Your task to perform on an android device: Open Google Chrome and open the bookmarks view Image 0: 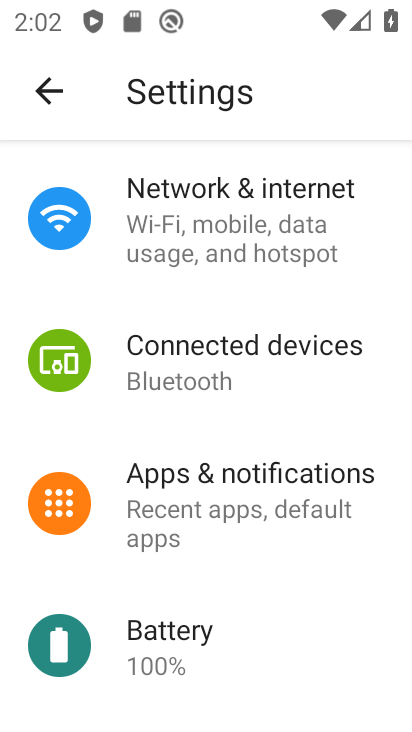
Step 0: press home button
Your task to perform on an android device: Open Google Chrome and open the bookmarks view Image 1: 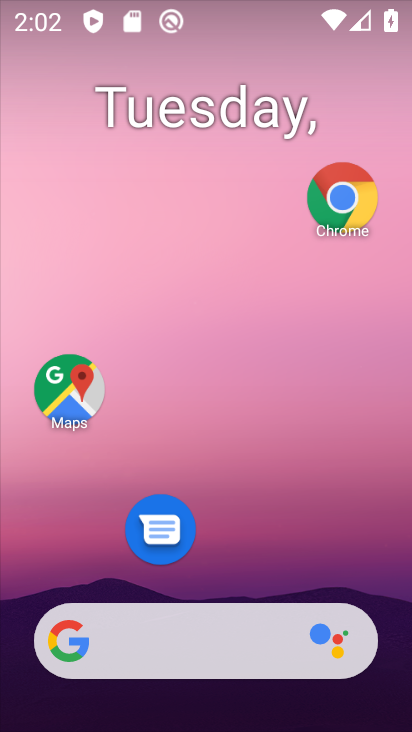
Step 1: click (339, 196)
Your task to perform on an android device: Open Google Chrome and open the bookmarks view Image 2: 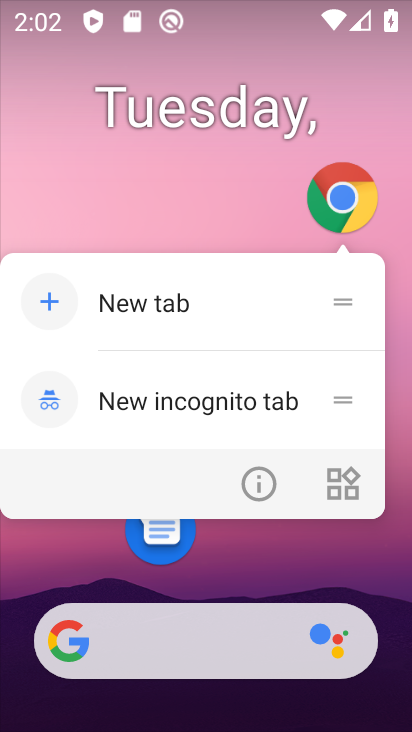
Step 2: click (345, 199)
Your task to perform on an android device: Open Google Chrome and open the bookmarks view Image 3: 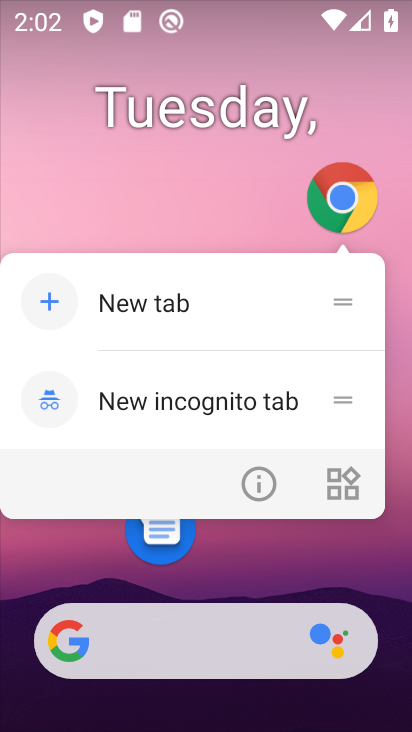
Step 3: click (346, 203)
Your task to perform on an android device: Open Google Chrome and open the bookmarks view Image 4: 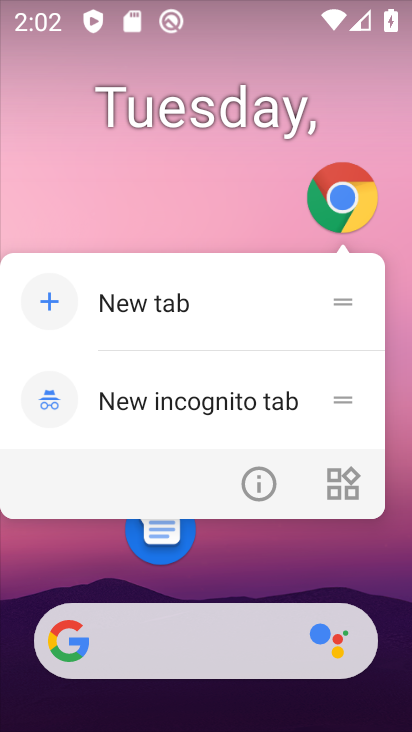
Step 4: click (347, 206)
Your task to perform on an android device: Open Google Chrome and open the bookmarks view Image 5: 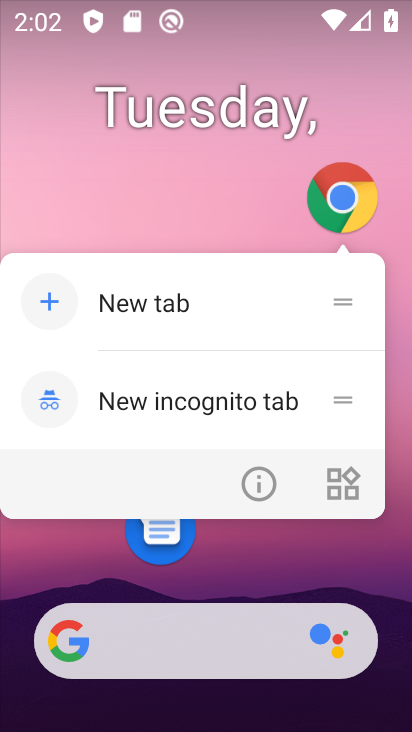
Step 5: click (352, 192)
Your task to perform on an android device: Open Google Chrome and open the bookmarks view Image 6: 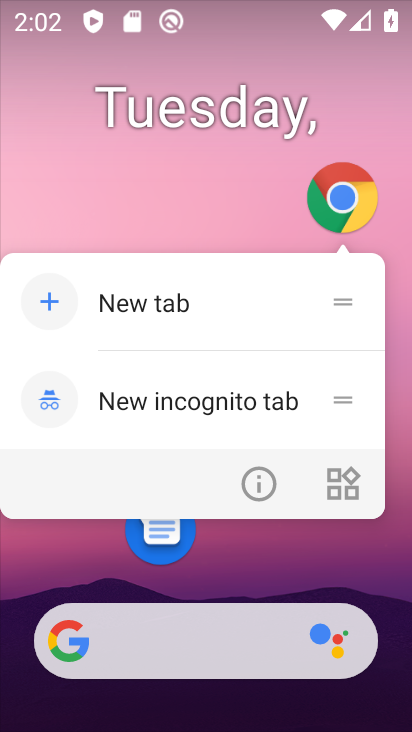
Step 6: click (348, 182)
Your task to perform on an android device: Open Google Chrome and open the bookmarks view Image 7: 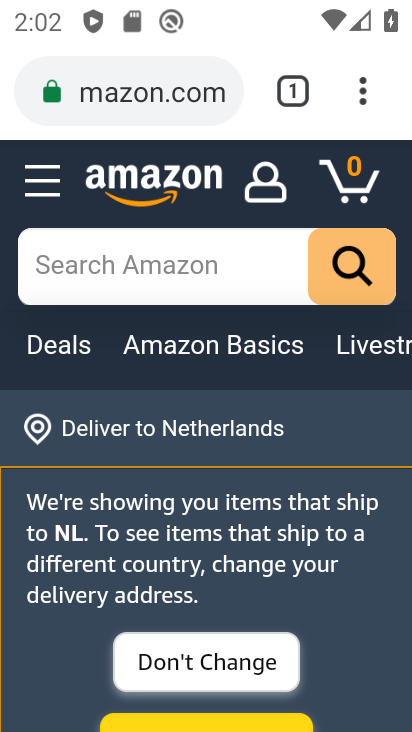
Step 7: task complete